Your task to perform on an android device: Go to battery settings Image 0: 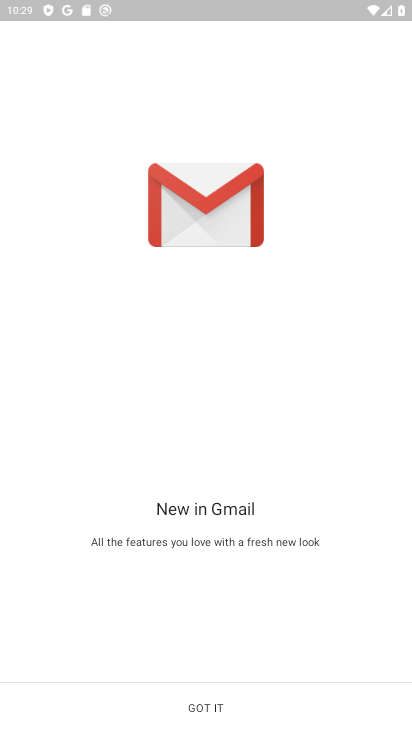
Step 0: press home button
Your task to perform on an android device: Go to battery settings Image 1: 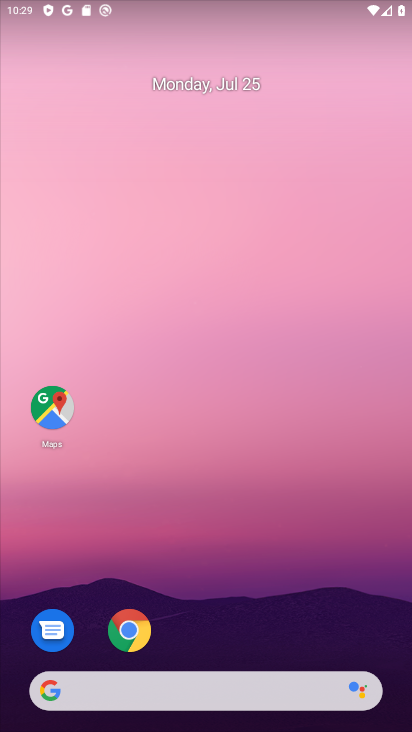
Step 1: drag from (243, 649) to (190, 237)
Your task to perform on an android device: Go to battery settings Image 2: 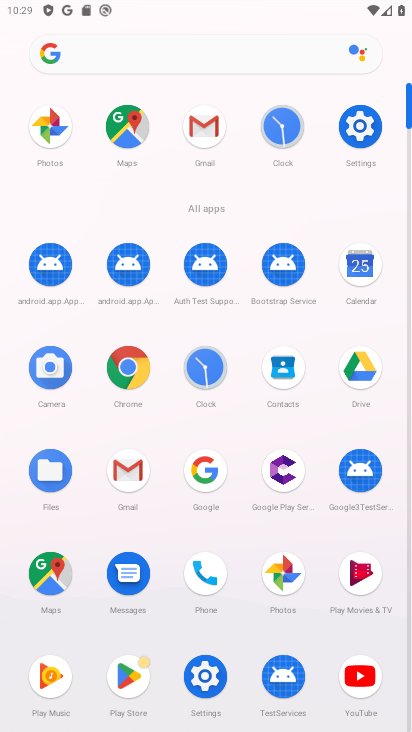
Step 2: click (372, 124)
Your task to perform on an android device: Go to battery settings Image 3: 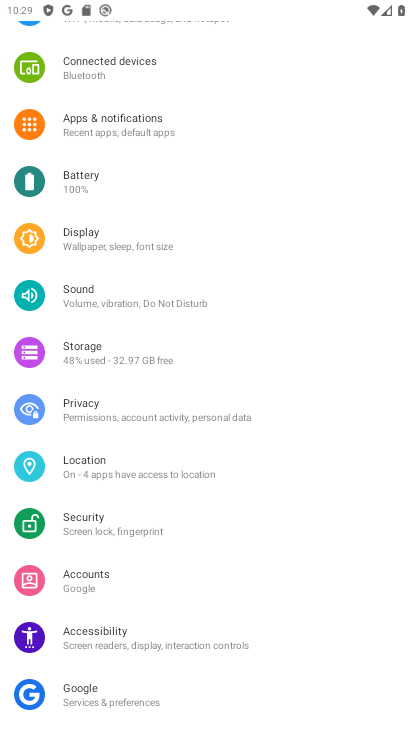
Step 3: click (159, 181)
Your task to perform on an android device: Go to battery settings Image 4: 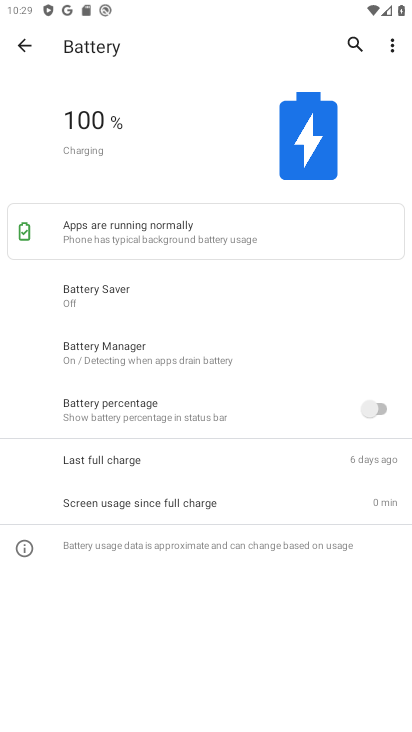
Step 4: task complete